Your task to perform on an android device: Go to Wikipedia Image 0: 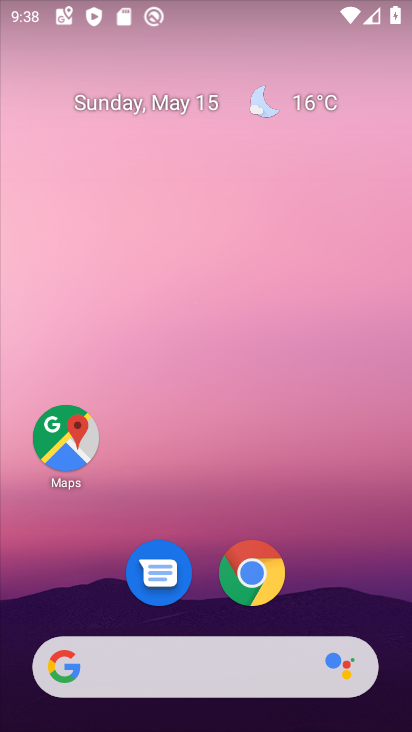
Step 0: drag from (383, 515) to (389, 144)
Your task to perform on an android device: Go to Wikipedia Image 1: 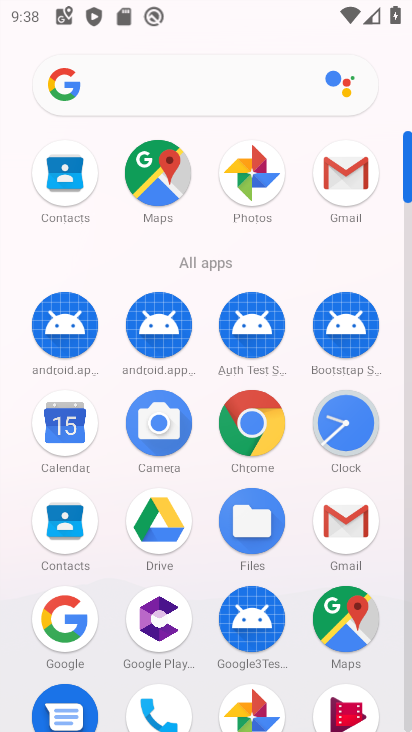
Step 1: click (261, 421)
Your task to perform on an android device: Go to Wikipedia Image 2: 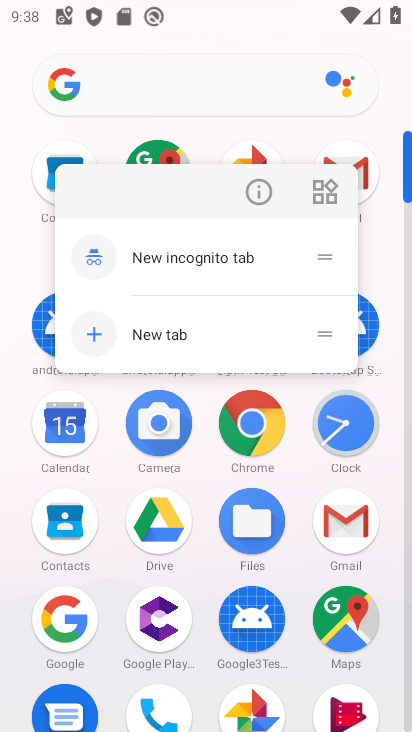
Step 2: click (261, 425)
Your task to perform on an android device: Go to Wikipedia Image 3: 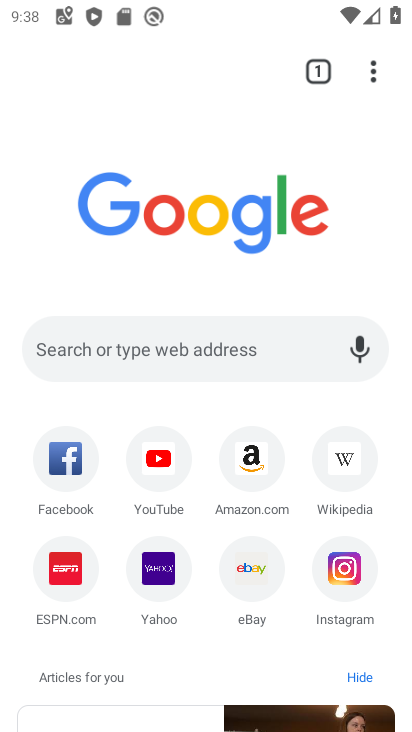
Step 3: click (334, 484)
Your task to perform on an android device: Go to Wikipedia Image 4: 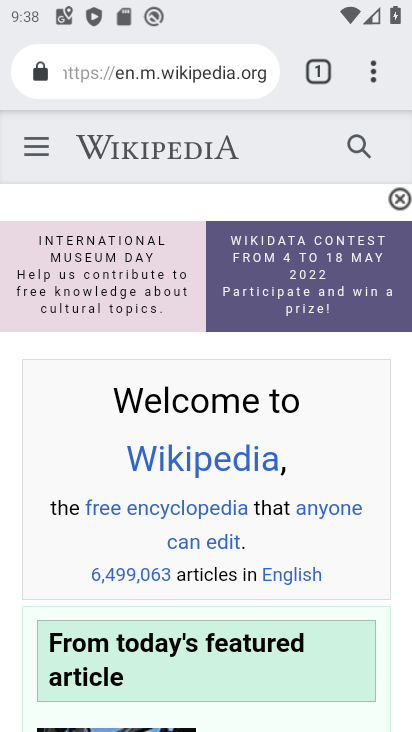
Step 4: task complete